Your task to perform on an android device: toggle pop-ups in chrome Image 0: 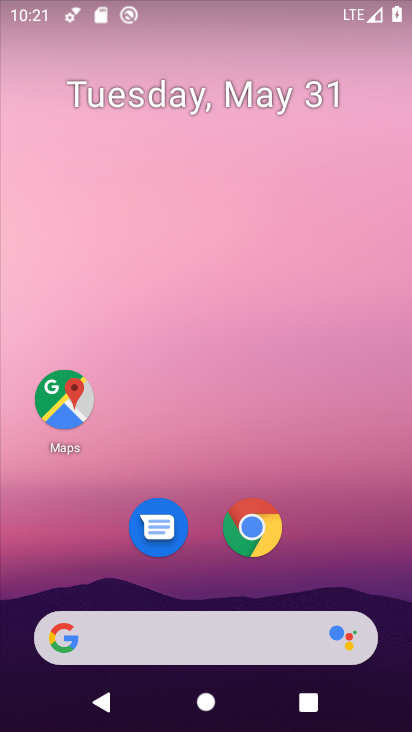
Step 0: click (253, 540)
Your task to perform on an android device: toggle pop-ups in chrome Image 1: 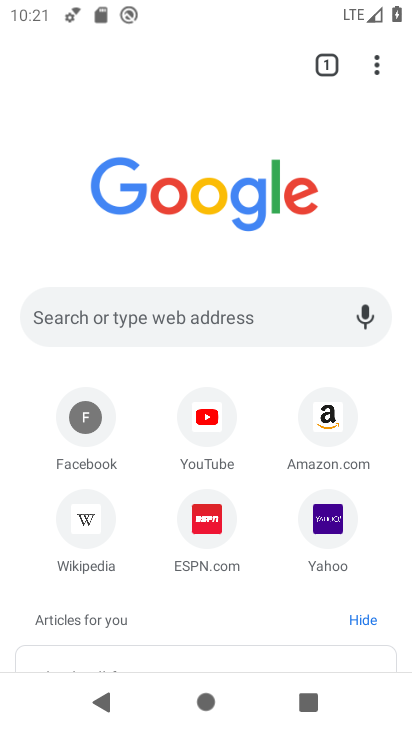
Step 1: click (375, 74)
Your task to perform on an android device: toggle pop-ups in chrome Image 2: 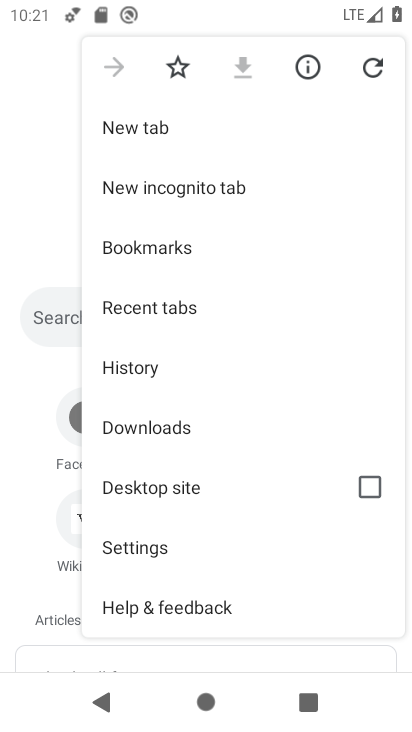
Step 2: click (159, 547)
Your task to perform on an android device: toggle pop-ups in chrome Image 3: 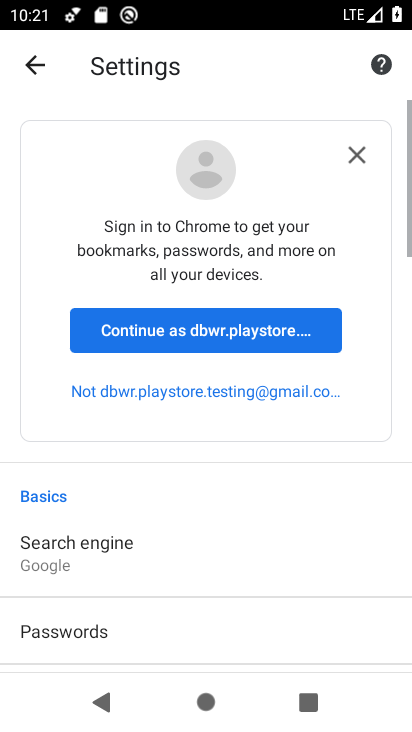
Step 3: drag from (159, 547) to (178, 106)
Your task to perform on an android device: toggle pop-ups in chrome Image 4: 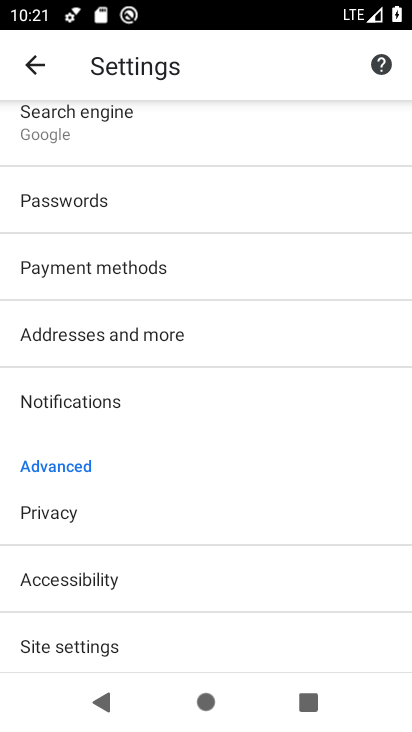
Step 4: drag from (147, 502) to (148, 248)
Your task to perform on an android device: toggle pop-ups in chrome Image 5: 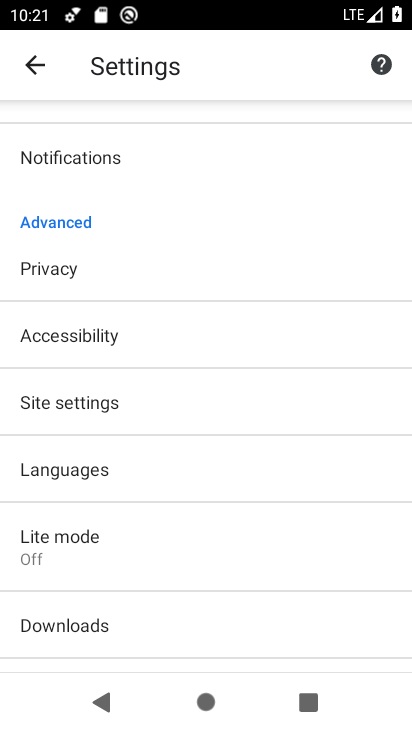
Step 5: click (67, 399)
Your task to perform on an android device: toggle pop-ups in chrome Image 6: 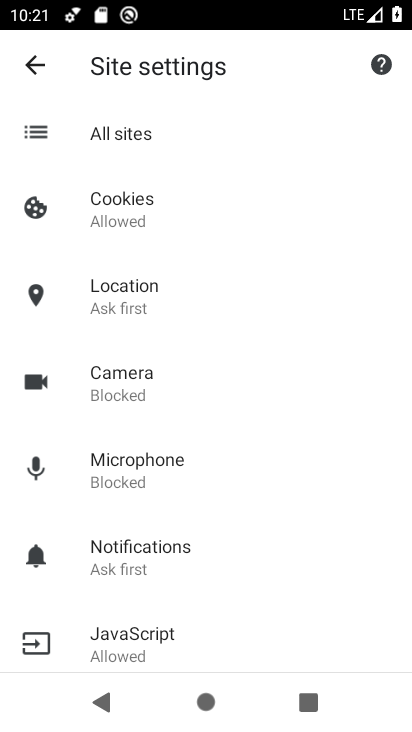
Step 6: drag from (230, 578) to (236, 314)
Your task to perform on an android device: toggle pop-ups in chrome Image 7: 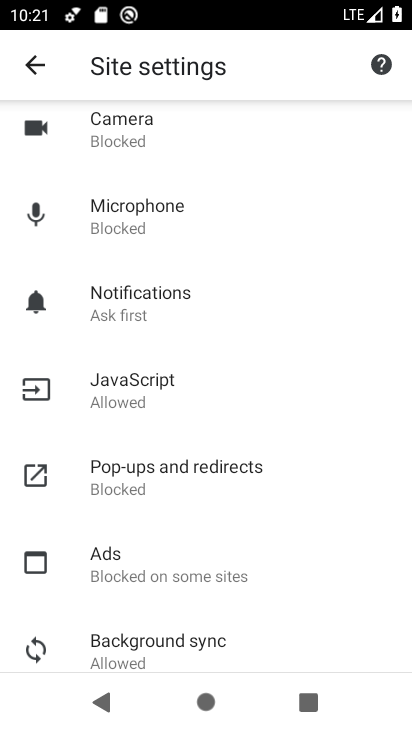
Step 7: click (110, 475)
Your task to perform on an android device: toggle pop-ups in chrome Image 8: 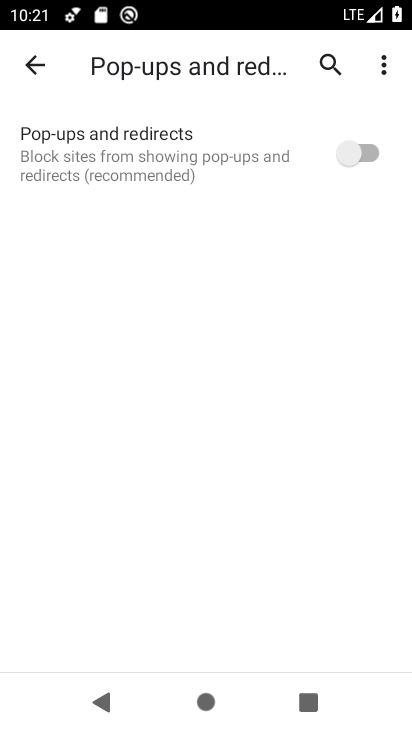
Step 8: click (356, 163)
Your task to perform on an android device: toggle pop-ups in chrome Image 9: 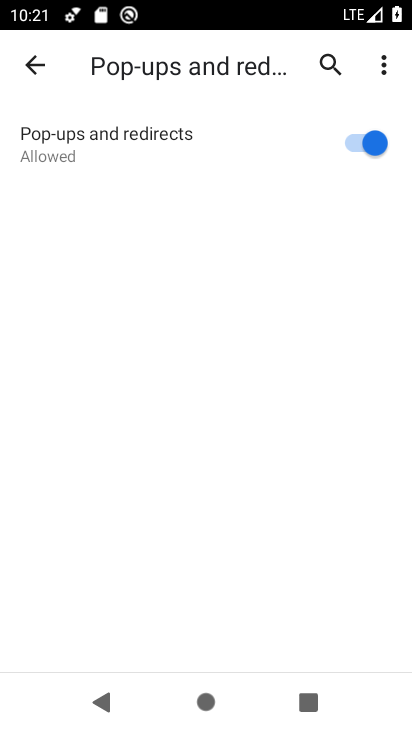
Step 9: task complete